Your task to perform on an android device: Go to settings Image 0: 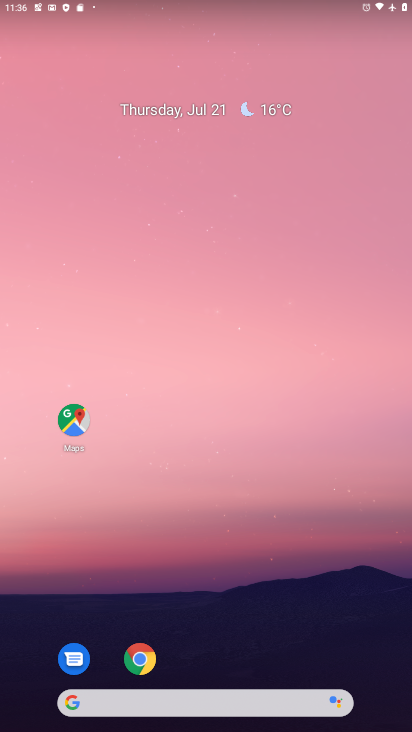
Step 0: drag from (203, 662) to (207, 99)
Your task to perform on an android device: Go to settings Image 1: 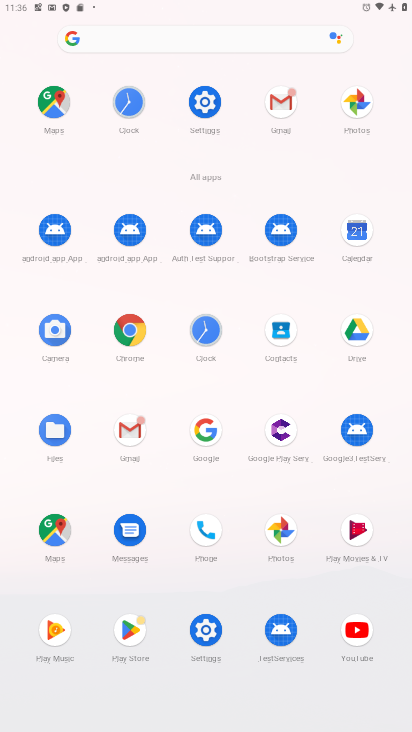
Step 1: click (206, 105)
Your task to perform on an android device: Go to settings Image 2: 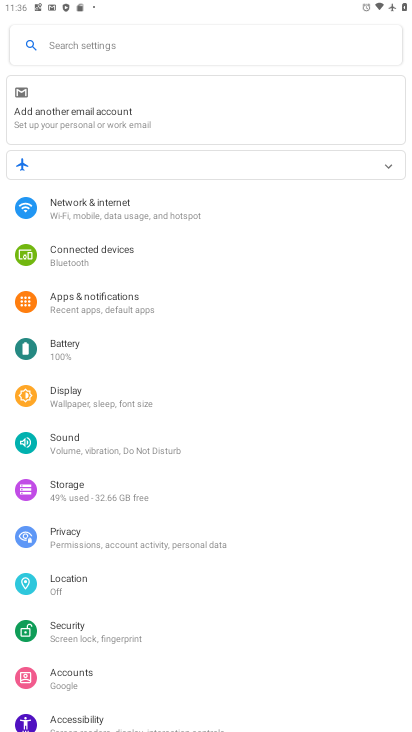
Step 2: task complete